Your task to perform on an android device: Go to settings Image 0: 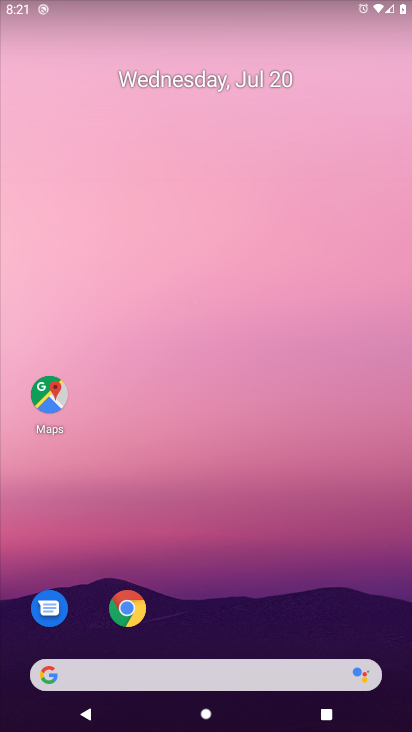
Step 0: drag from (225, 588) to (237, 227)
Your task to perform on an android device: Go to settings Image 1: 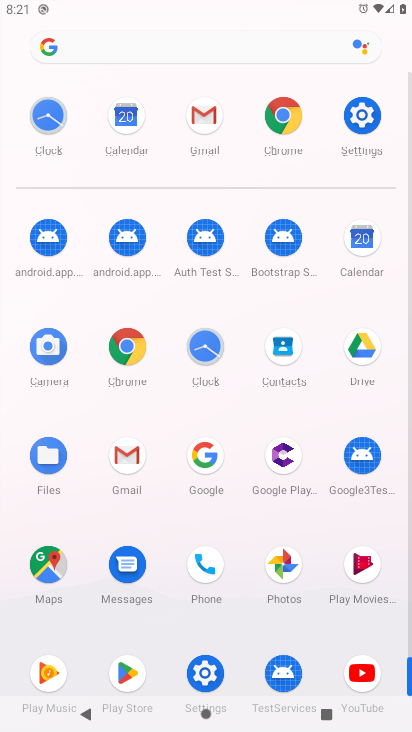
Step 1: click (360, 121)
Your task to perform on an android device: Go to settings Image 2: 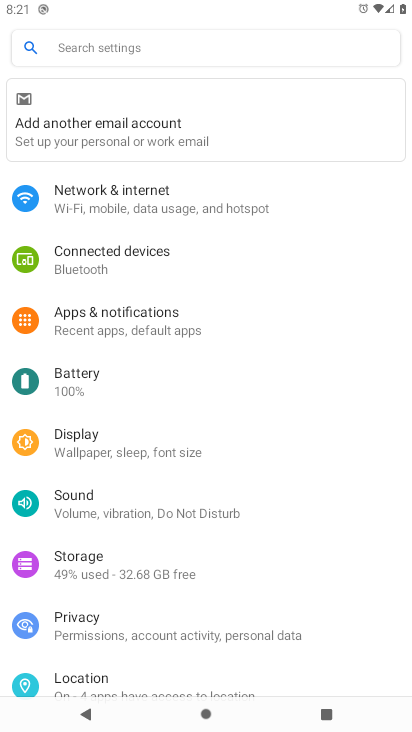
Step 2: task complete